Your task to perform on an android device: toggle sleep mode Image 0: 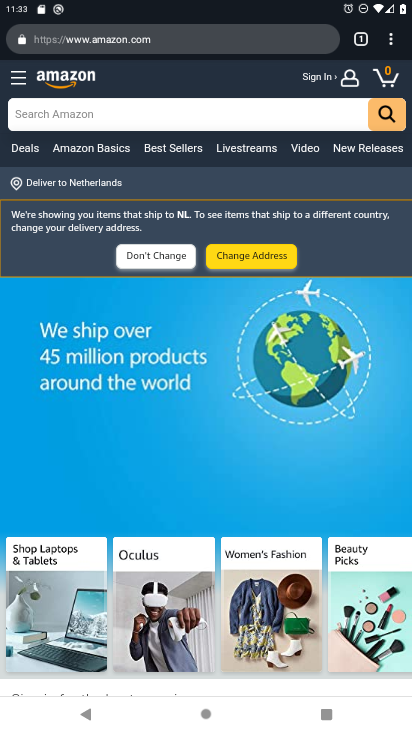
Step 0: press home button
Your task to perform on an android device: toggle sleep mode Image 1: 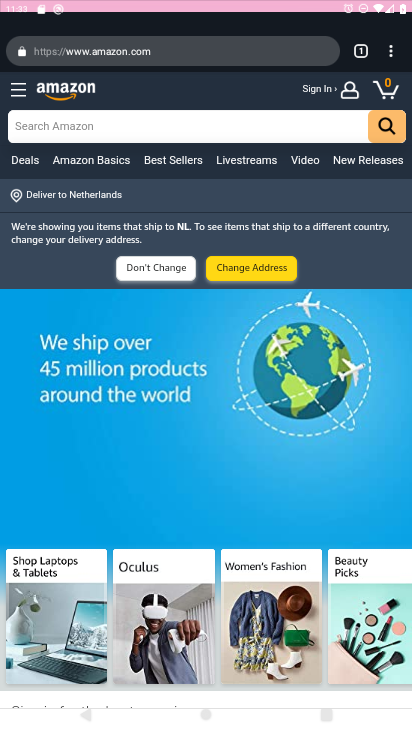
Step 1: drag from (404, 666) to (21, 94)
Your task to perform on an android device: toggle sleep mode Image 2: 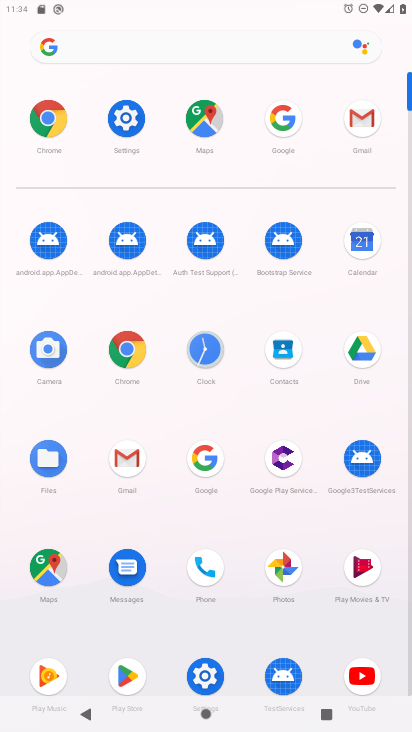
Step 2: click (121, 112)
Your task to perform on an android device: toggle sleep mode Image 3: 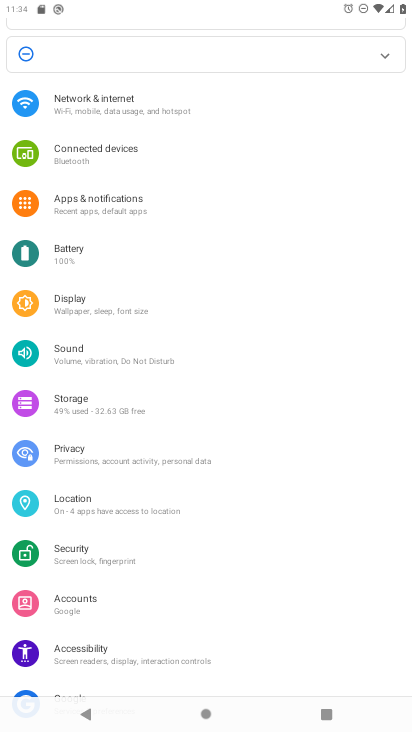
Step 3: task complete